Your task to perform on an android device: Is it going to rain this weekend? Image 0: 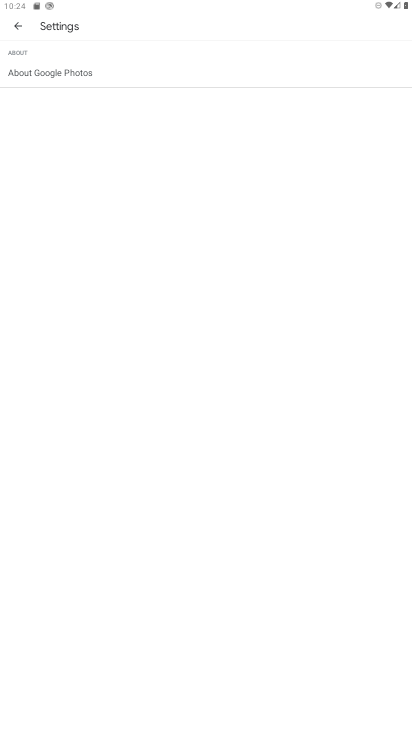
Step 0: press home button
Your task to perform on an android device: Is it going to rain this weekend? Image 1: 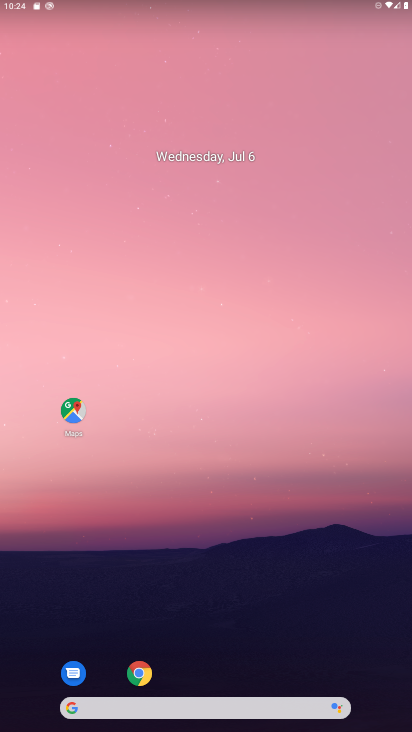
Step 1: click (227, 711)
Your task to perform on an android device: Is it going to rain this weekend? Image 2: 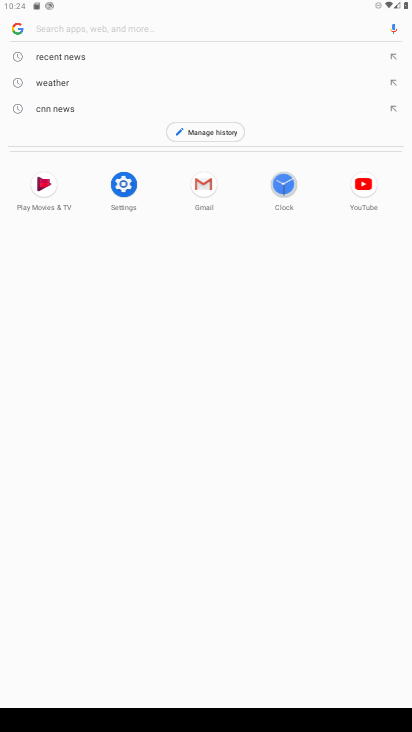
Step 2: type "weekend weather"
Your task to perform on an android device: Is it going to rain this weekend? Image 3: 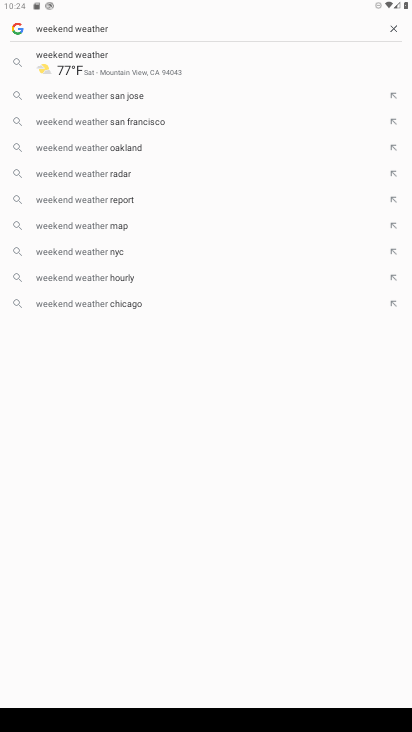
Step 3: click (162, 57)
Your task to perform on an android device: Is it going to rain this weekend? Image 4: 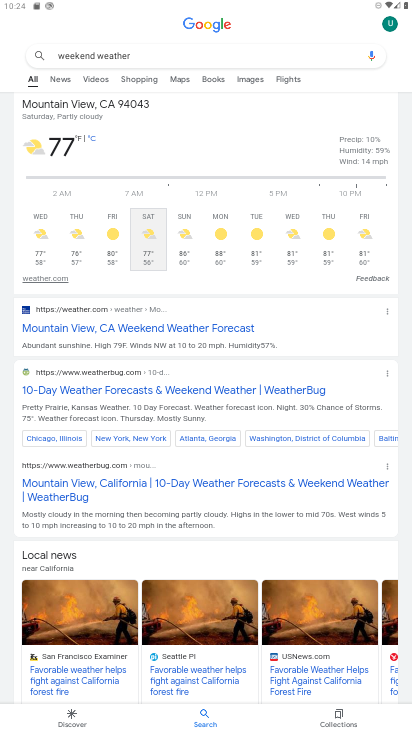
Step 4: task complete